Your task to perform on an android device: turn on airplane mode Image 0: 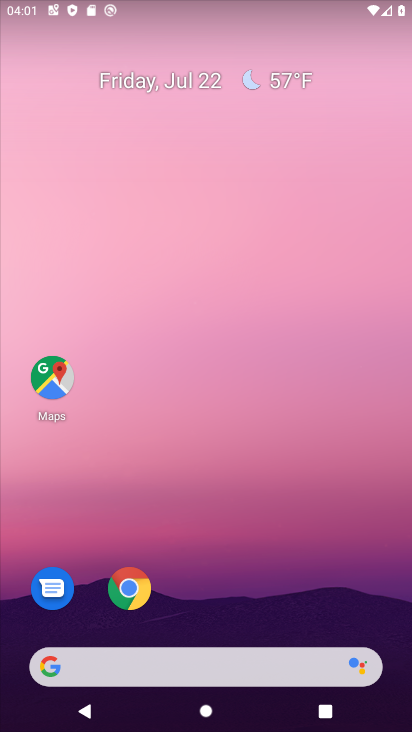
Step 0: drag from (211, 636) to (185, 47)
Your task to perform on an android device: turn on airplane mode Image 1: 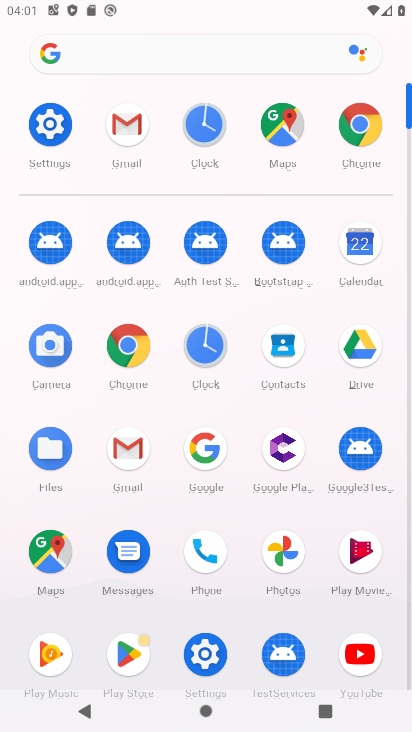
Step 1: click (56, 138)
Your task to perform on an android device: turn on airplane mode Image 2: 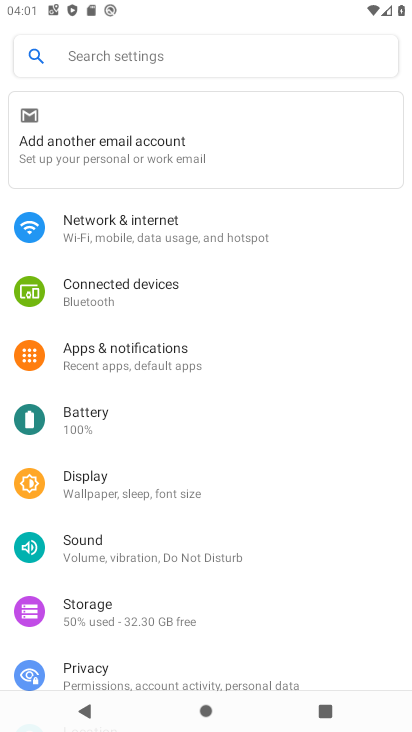
Step 2: click (139, 235)
Your task to perform on an android device: turn on airplane mode Image 3: 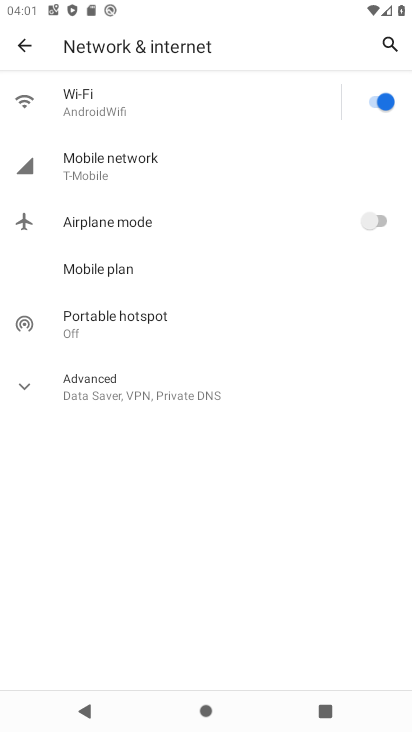
Step 3: click (371, 220)
Your task to perform on an android device: turn on airplane mode Image 4: 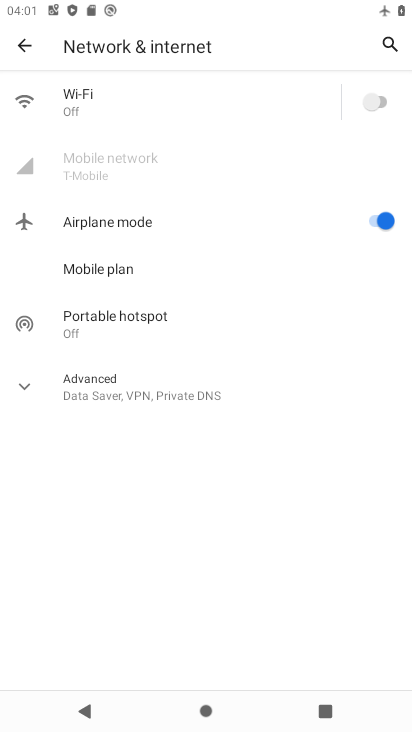
Step 4: task complete